Your task to perform on an android device: manage bookmarks in the chrome app Image 0: 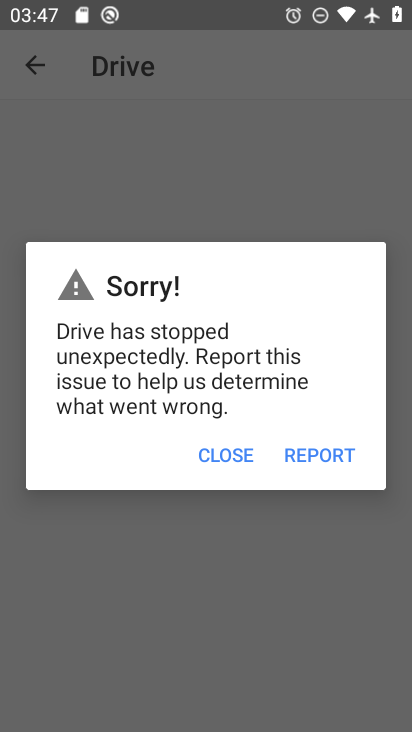
Step 0: press home button
Your task to perform on an android device: manage bookmarks in the chrome app Image 1: 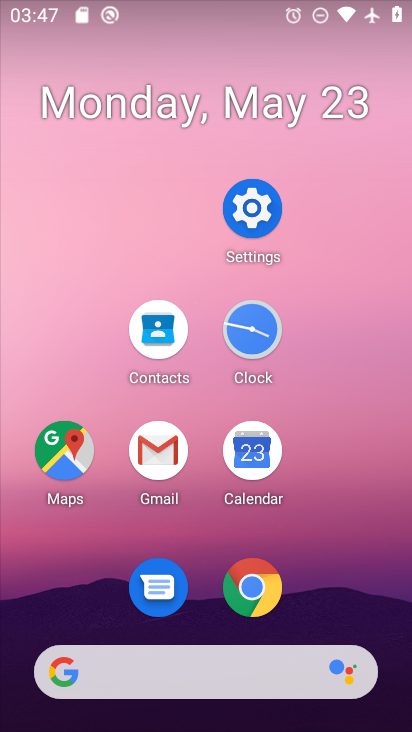
Step 1: click (250, 594)
Your task to perform on an android device: manage bookmarks in the chrome app Image 2: 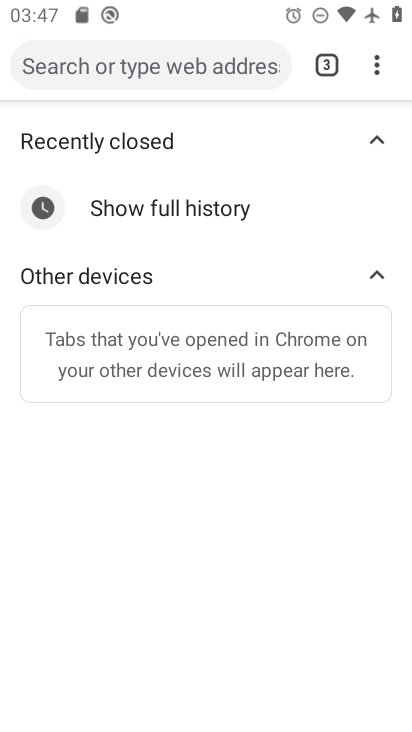
Step 2: click (371, 55)
Your task to perform on an android device: manage bookmarks in the chrome app Image 3: 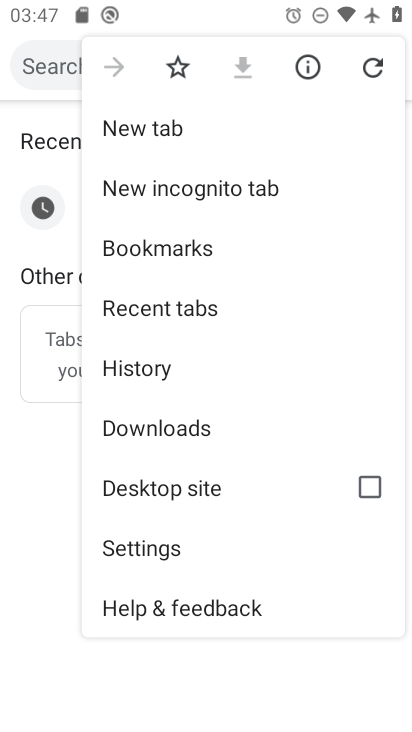
Step 3: click (184, 265)
Your task to perform on an android device: manage bookmarks in the chrome app Image 4: 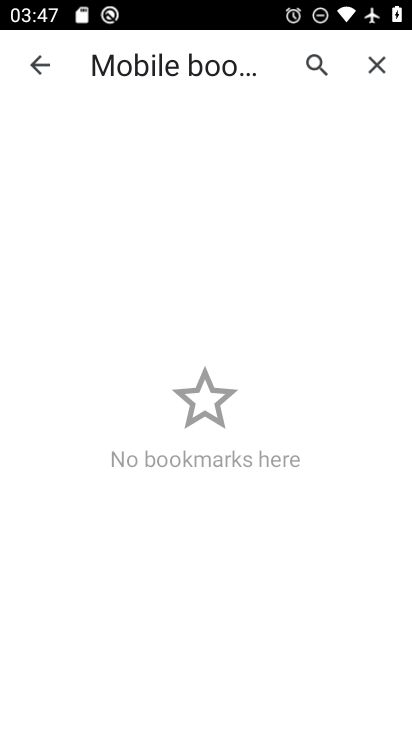
Step 4: task complete